Your task to perform on an android device: turn pop-ups off in chrome Image 0: 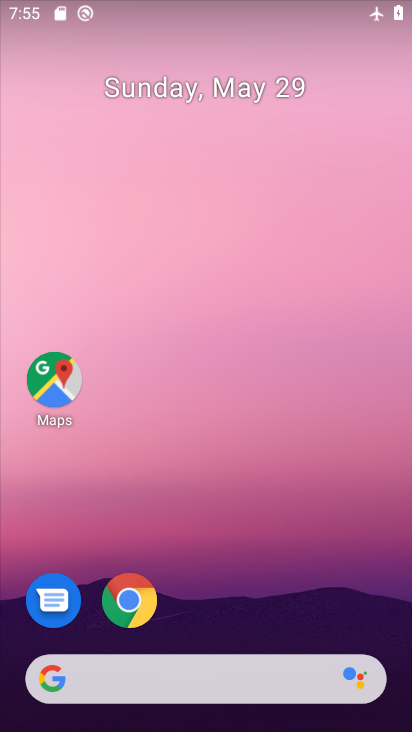
Step 0: click (126, 589)
Your task to perform on an android device: turn pop-ups off in chrome Image 1: 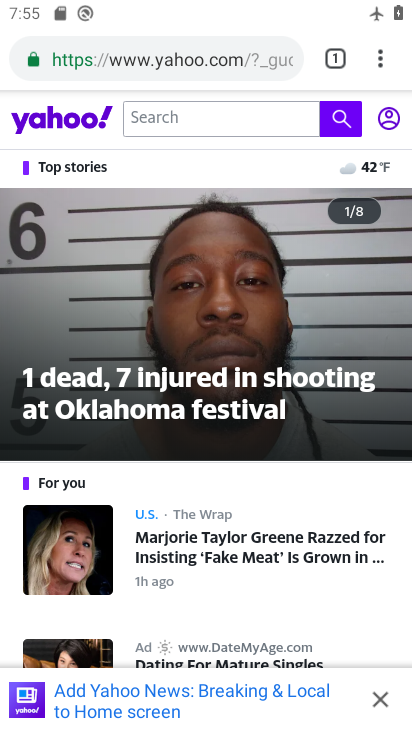
Step 1: click (385, 48)
Your task to perform on an android device: turn pop-ups off in chrome Image 2: 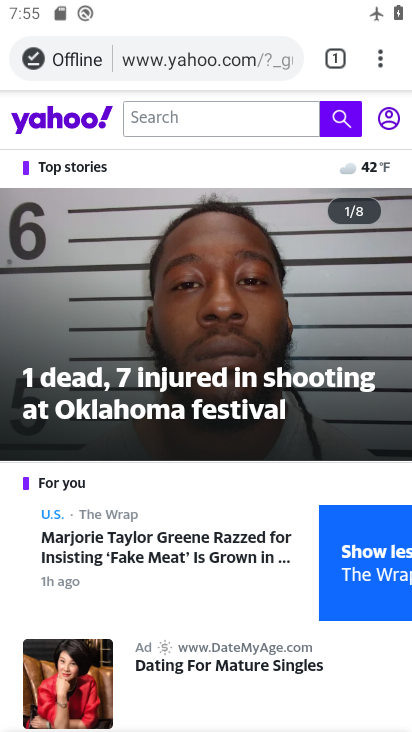
Step 2: click (384, 53)
Your task to perform on an android device: turn pop-ups off in chrome Image 3: 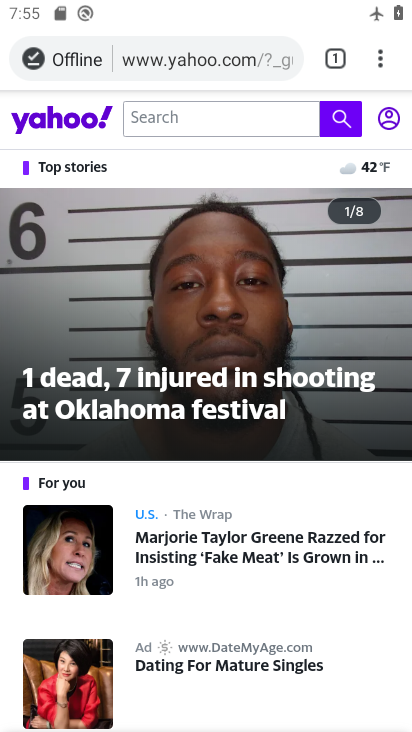
Step 3: click (378, 58)
Your task to perform on an android device: turn pop-ups off in chrome Image 4: 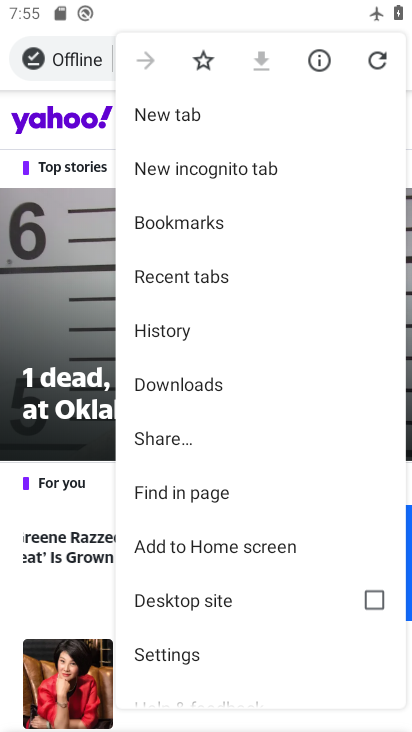
Step 4: click (191, 652)
Your task to perform on an android device: turn pop-ups off in chrome Image 5: 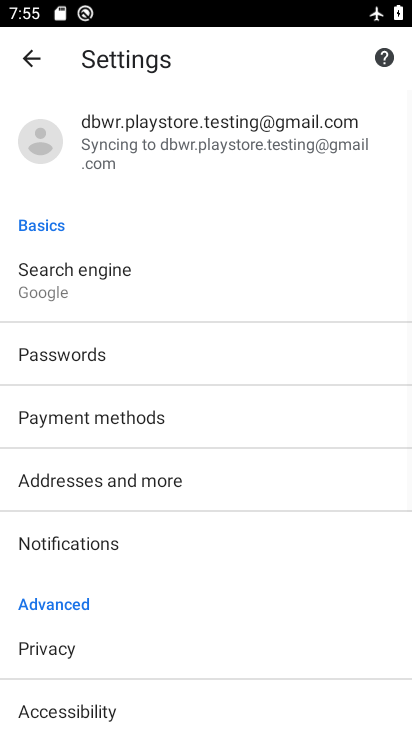
Step 5: drag from (187, 671) to (197, 228)
Your task to perform on an android device: turn pop-ups off in chrome Image 6: 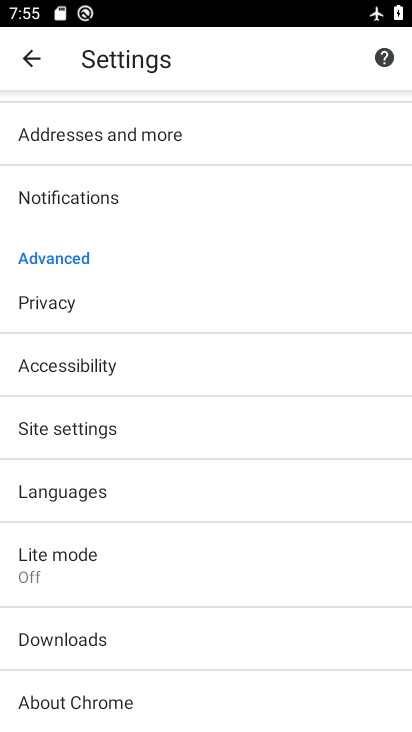
Step 6: click (97, 430)
Your task to perform on an android device: turn pop-ups off in chrome Image 7: 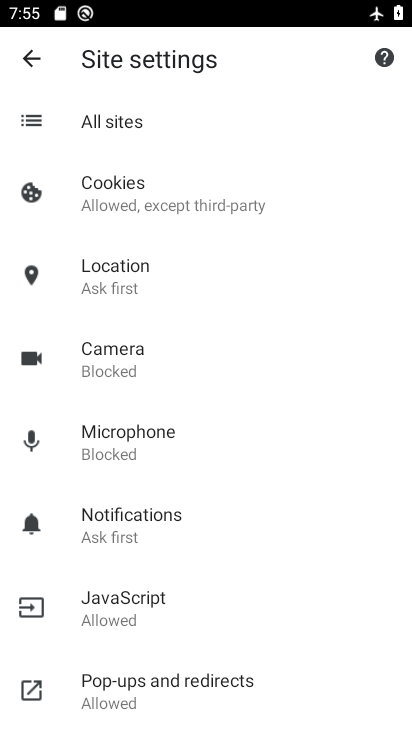
Step 7: click (160, 685)
Your task to perform on an android device: turn pop-ups off in chrome Image 8: 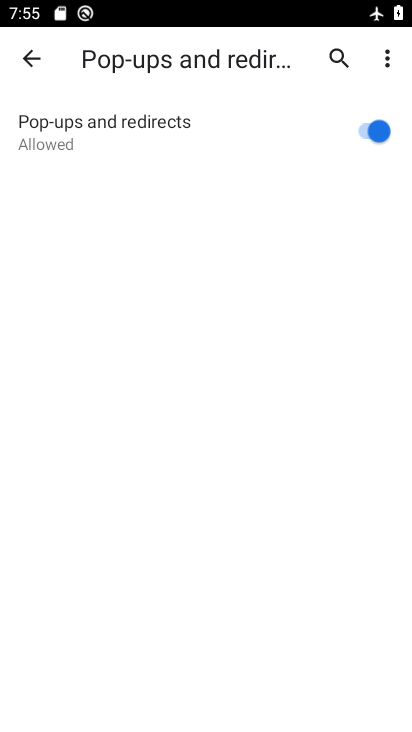
Step 8: click (355, 127)
Your task to perform on an android device: turn pop-ups off in chrome Image 9: 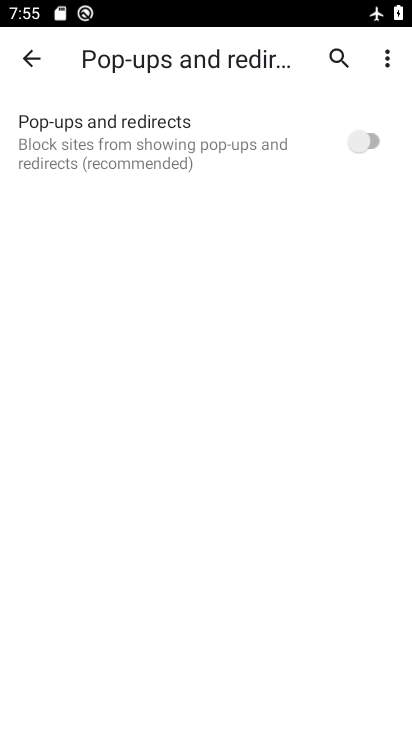
Step 9: task complete